Your task to perform on an android device: turn off picture-in-picture Image 0: 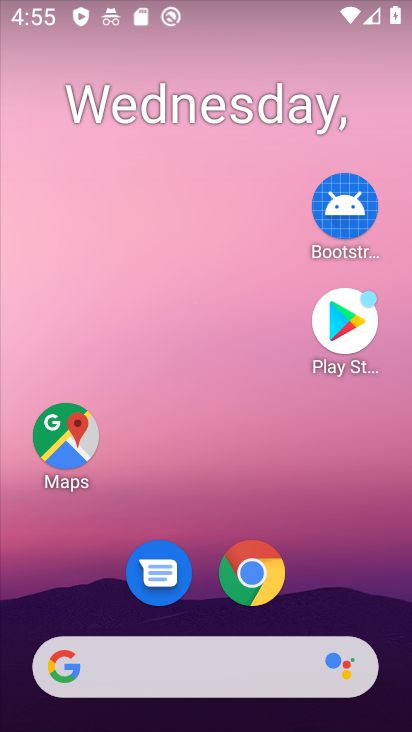
Step 0: click (236, 590)
Your task to perform on an android device: turn off picture-in-picture Image 1: 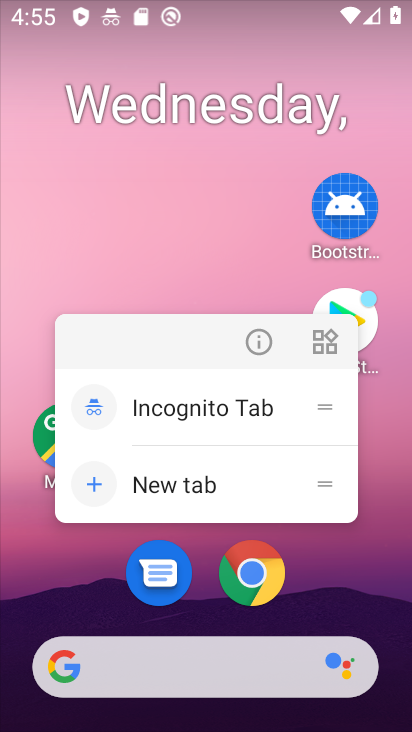
Step 1: click (257, 340)
Your task to perform on an android device: turn off picture-in-picture Image 2: 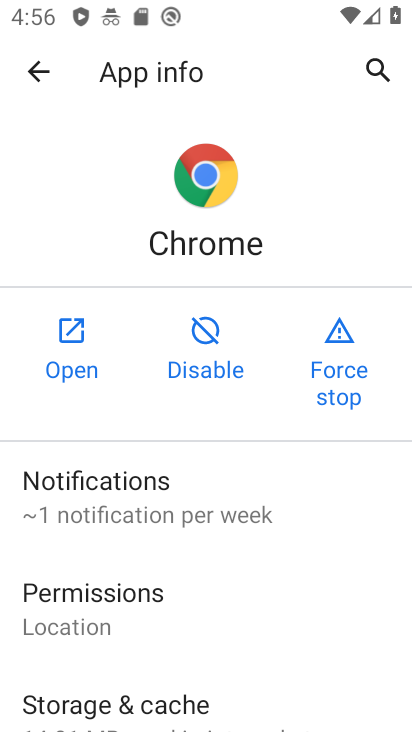
Step 2: drag from (292, 678) to (216, 41)
Your task to perform on an android device: turn off picture-in-picture Image 3: 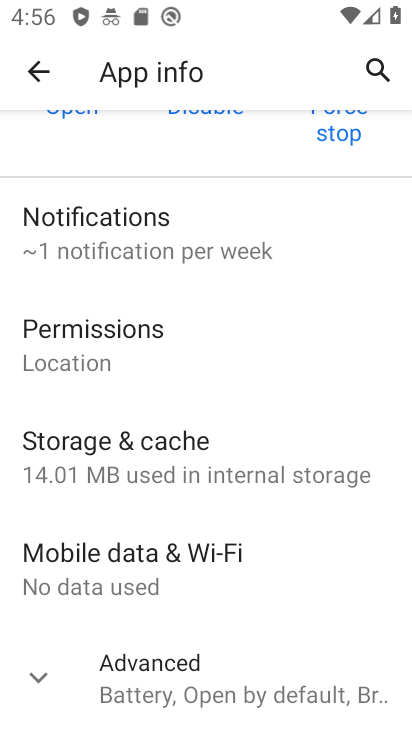
Step 3: click (155, 683)
Your task to perform on an android device: turn off picture-in-picture Image 4: 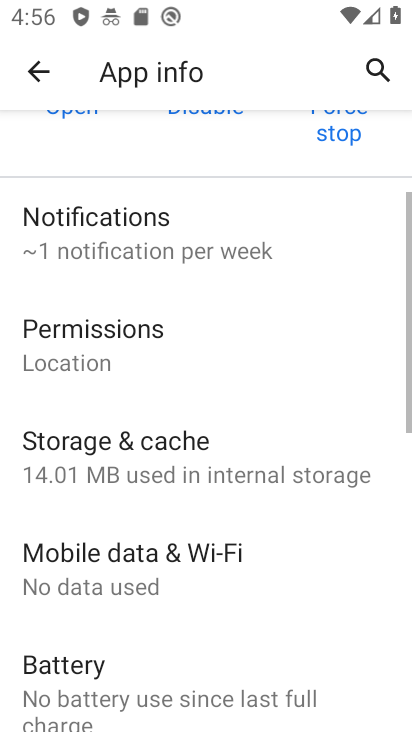
Step 4: drag from (155, 678) to (129, 190)
Your task to perform on an android device: turn off picture-in-picture Image 5: 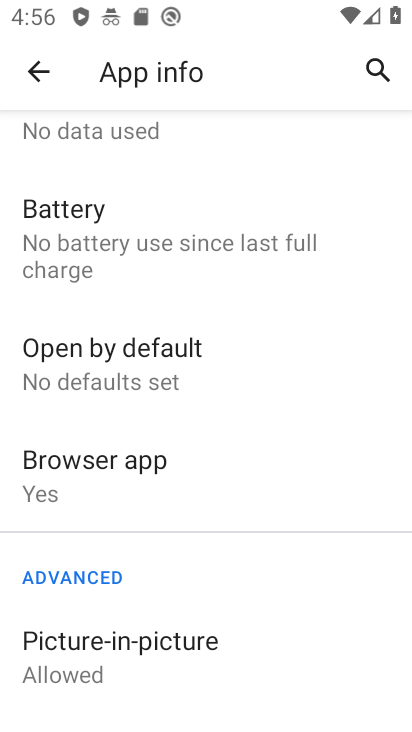
Step 5: click (71, 658)
Your task to perform on an android device: turn off picture-in-picture Image 6: 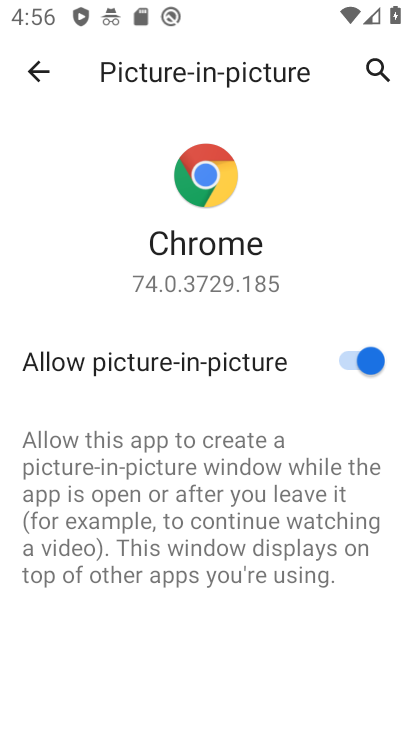
Step 6: click (235, 376)
Your task to perform on an android device: turn off picture-in-picture Image 7: 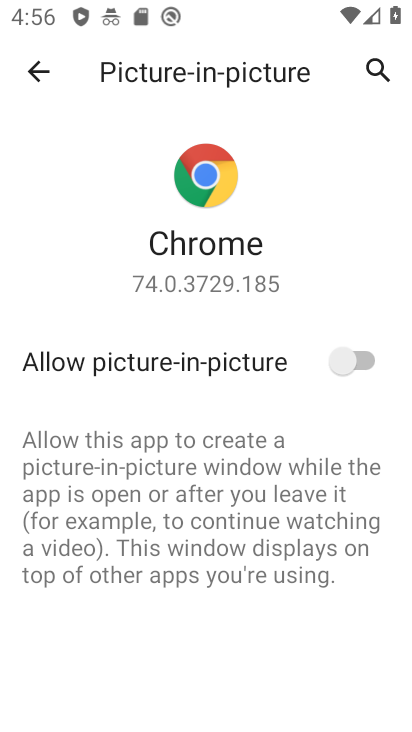
Step 7: task complete